Your task to perform on an android device: Show me productivity apps on the Play Store Image 0: 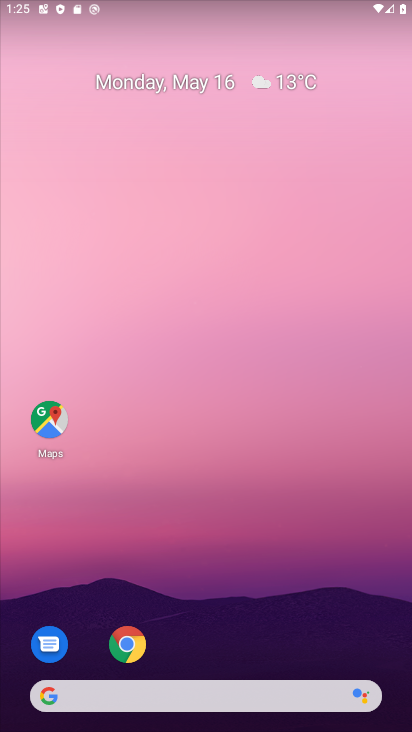
Step 0: drag from (247, 659) to (335, 103)
Your task to perform on an android device: Show me productivity apps on the Play Store Image 1: 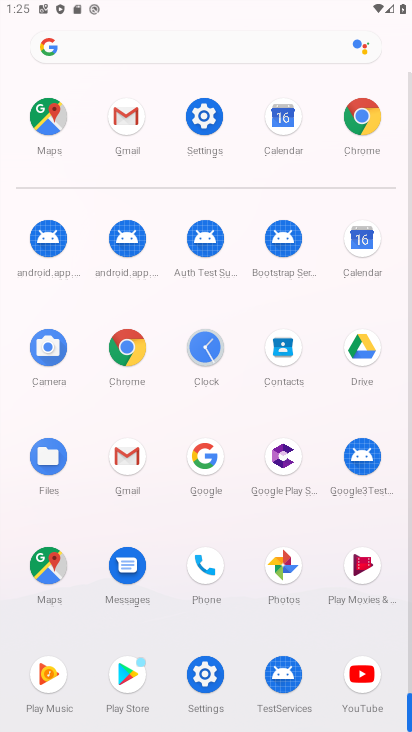
Step 1: click (410, 590)
Your task to perform on an android device: Show me productivity apps on the Play Store Image 2: 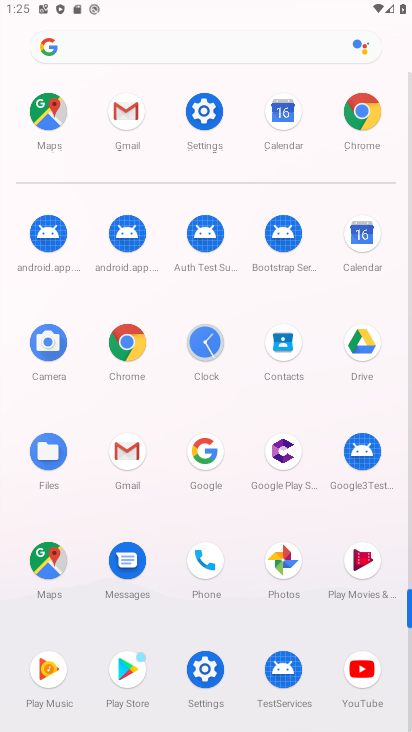
Step 2: click (407, 704)
Your task to perform on an android device: Show me productivity apps on the Play Store Image 3: 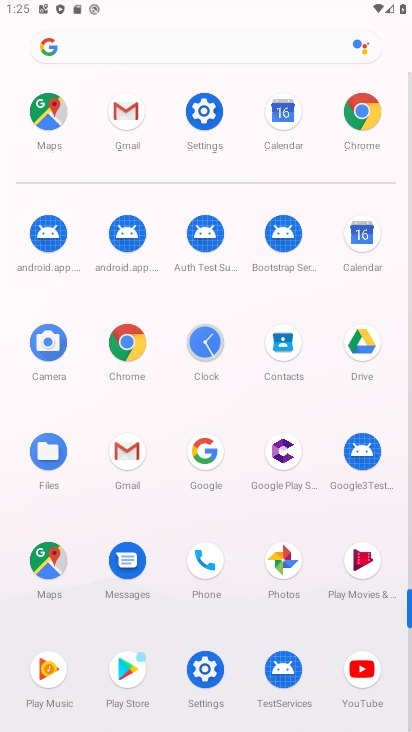
Step 3: click (407, 720)
Your task to perform on an android device: Show me productivity apps on the Play Store Image 4: 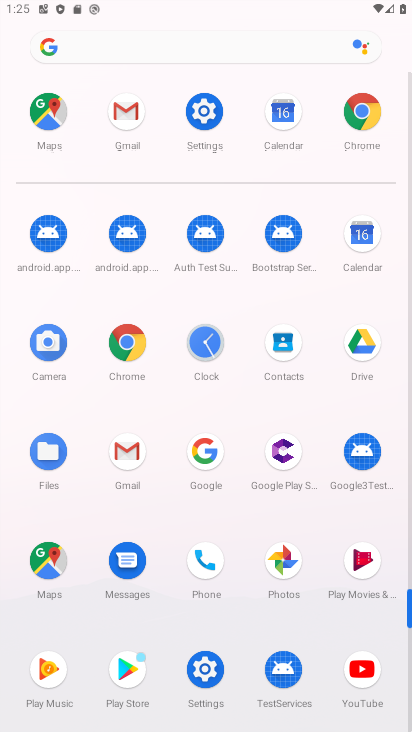
Step 4: click (411, 627)
Your task to perform on an android device: Show me productivity apps on the Play Store Image 5: 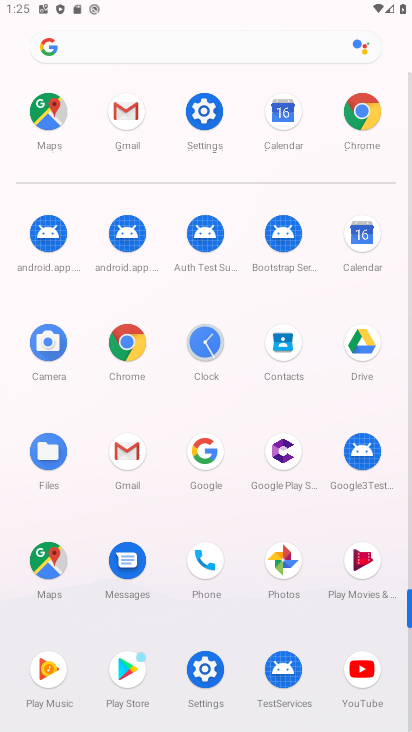
Step 5: click (410, 659)
Your task to perform on an android device: Show me productivity apps on the Play Store Image 6: 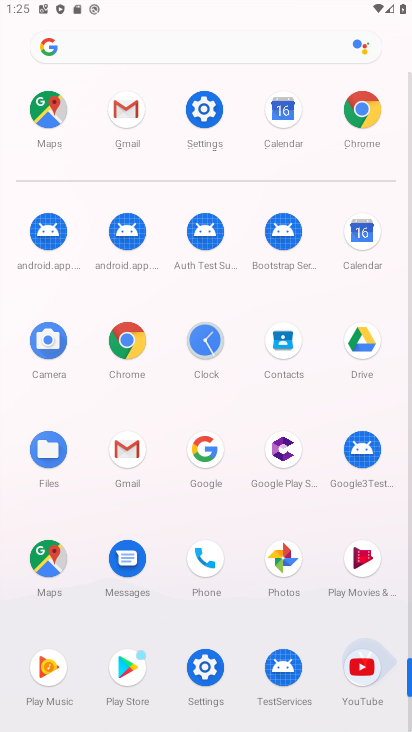
Step 6: click (410, 659)
Your task to perform on an android device: Show me productivity apps on the Play Store Image 7: 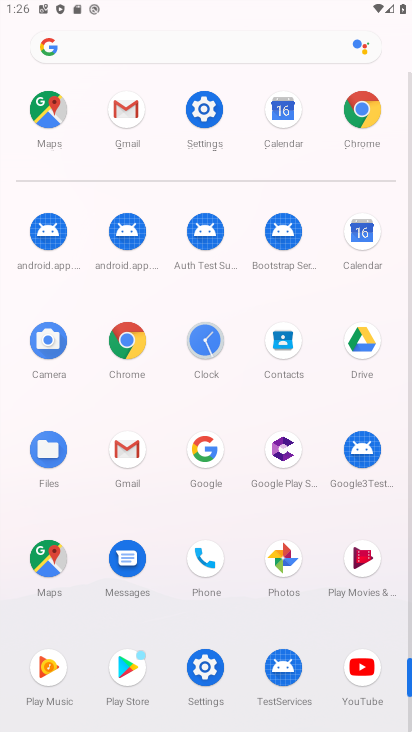
Step 7: click (126, 653)
Your task to perform on an android device: Show me productivity apps on the Play Store Image 8: 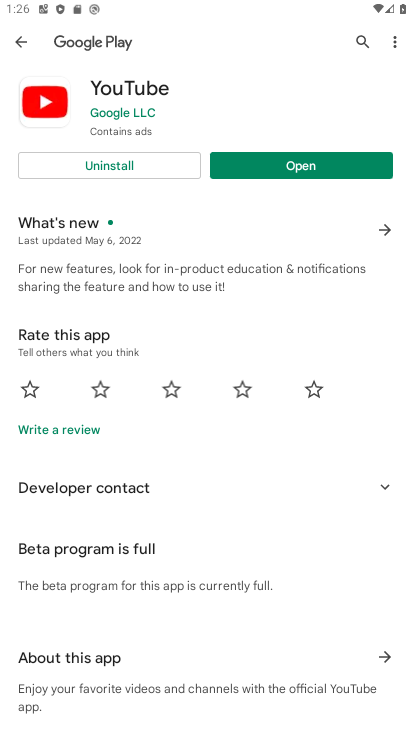
Step 8: click (18, 44)
Your task to perform on an android device: Show me productivity apps on the Play Store Image 9: 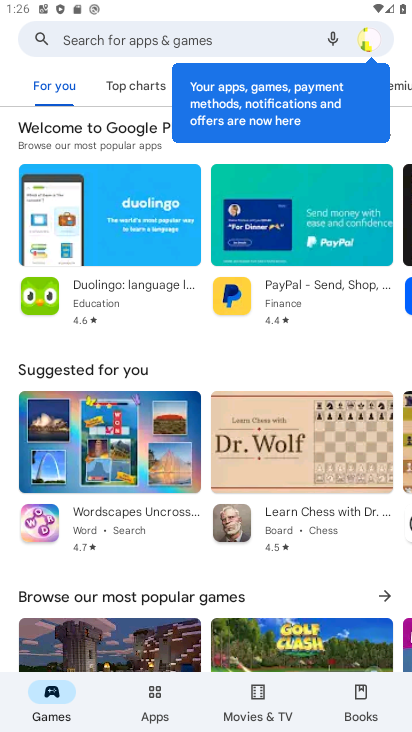
Step 9: click (191, 40)
Your task to perform on an android device: Show me productivity apps on the Play Store Image 10: 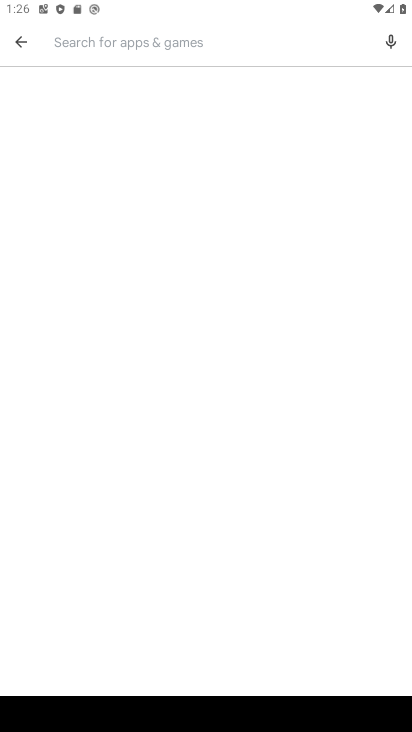
Step 10: type "productivity aaps"
Your task to perform on an android device: Show me productivity apps on the Play Store Image 11: 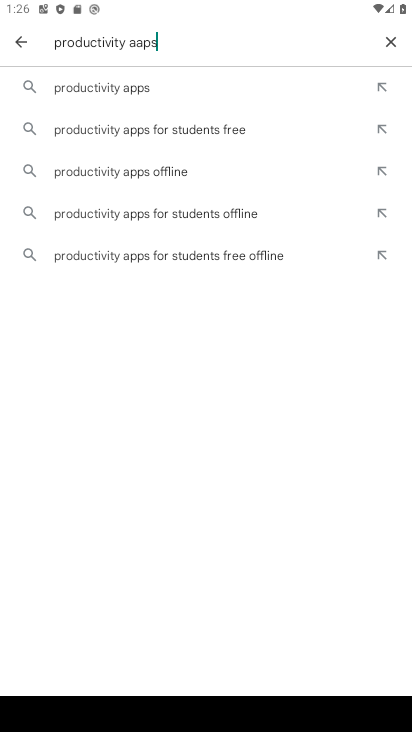
Step 11: click (227, 94)
Your task to perform on an android device: Show me productivity apps on the Play Store Image 12: 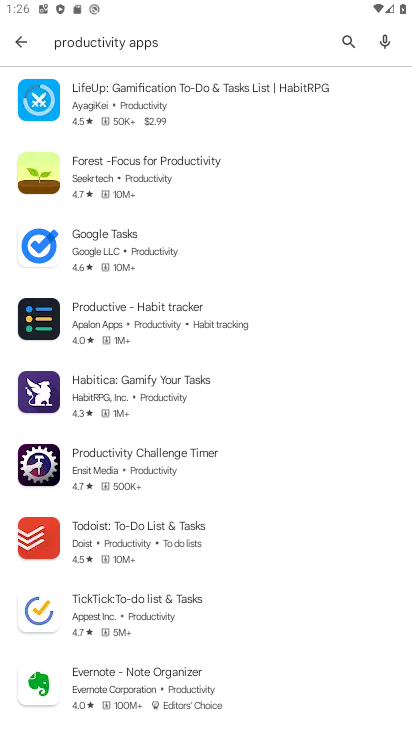
Step 12: task complete